Your task to perform on an android device: toggle priority inbox in the gmail app Image 0: 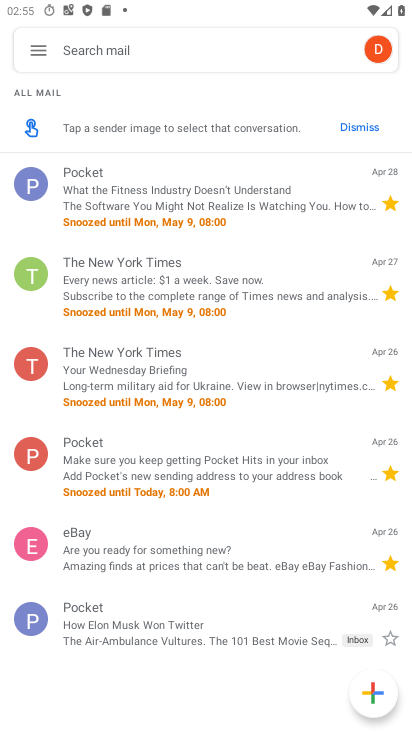
Step 0: press home button
Your task to perform on an android device: toggle priority inbox in the gmail app Image 1: 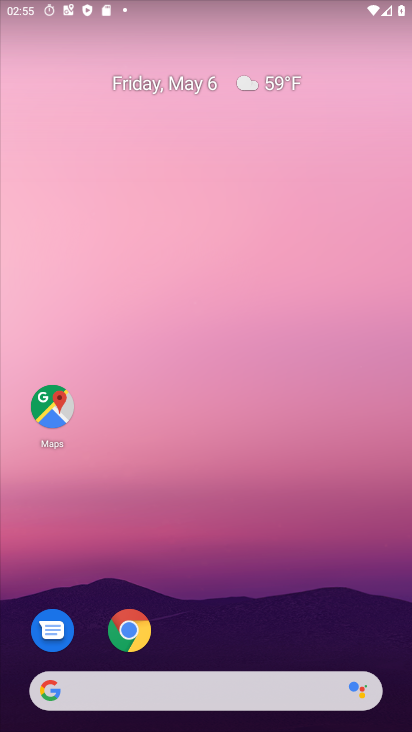
Step 1: drag from (217, 641) to (207, 226)
Your task to perform on an android device: toggle priority inbox in the gmail app Image 2: 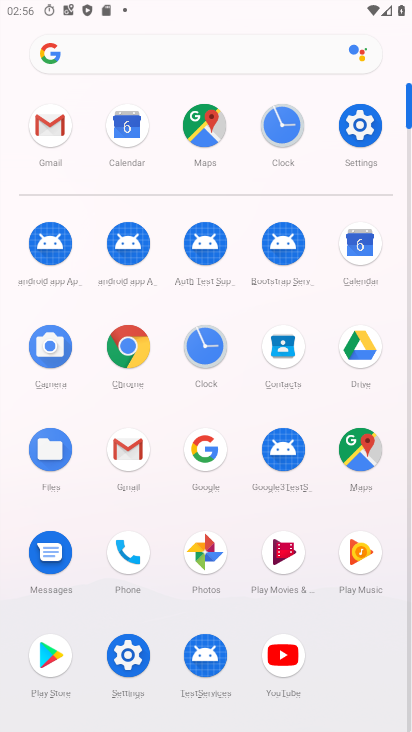
Step 2: click (140, 440)
Your task to perform on an android device: toggle priority inbox in the gmail app Image 3: 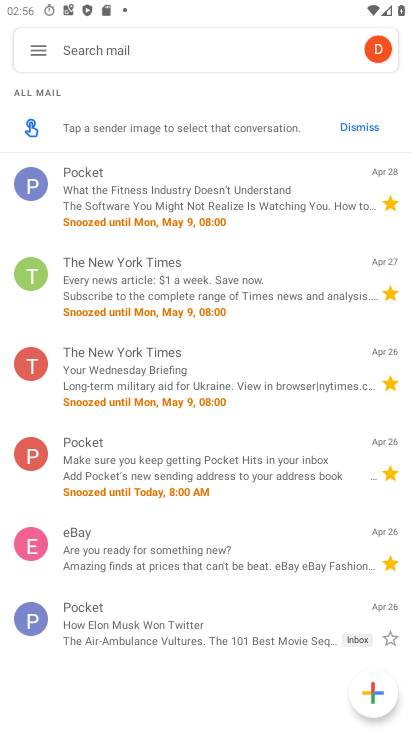
Step 3: click (40, 45)
Your task to perform on an android device: toggle priority inbox in the gmail app Image 4: 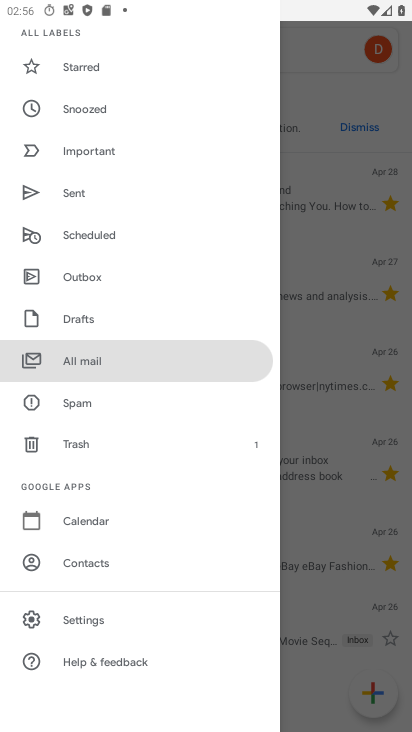
Step 4: click (90, 619)
Your task to perform on an android device: toggle priority inbox in the gmail app Image 5: 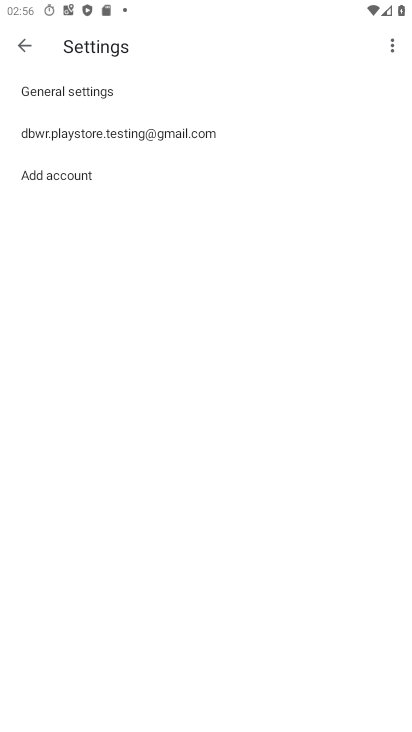
Step 5: click (92, 140)
Your task to perform on an android device: toggle priority inbox in the gmail app Image 6: 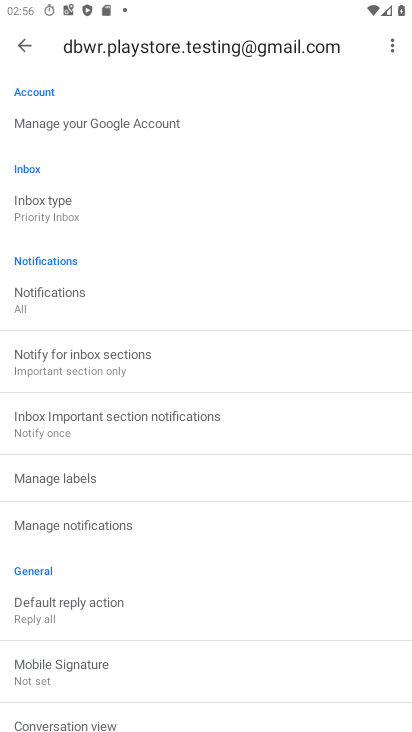
Step 6: click (84, 210)
Your task to perform on an android device: toggle priority inbox in the gmail app Image 7: 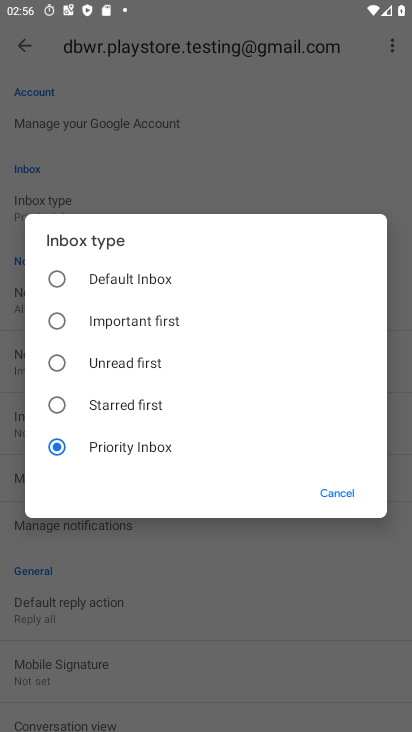
Step 7: click (75, 277)
Your task to perform on an android device: toggle priority inbox in the gmail app Image 8: 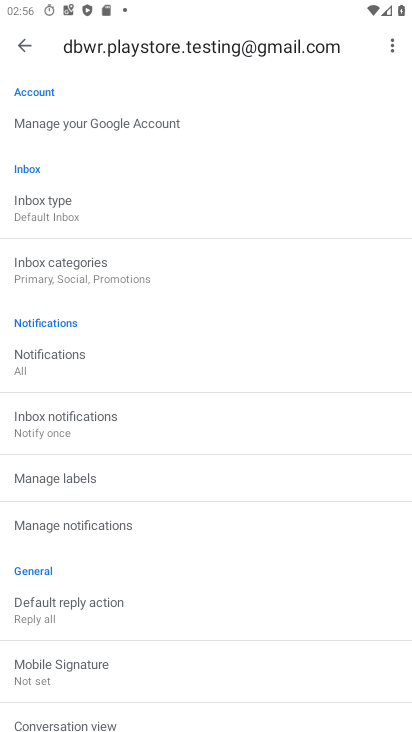
Step 8: task complete